Your task to perform on an android device: turn on priority inbox in the gmail app Image 0: 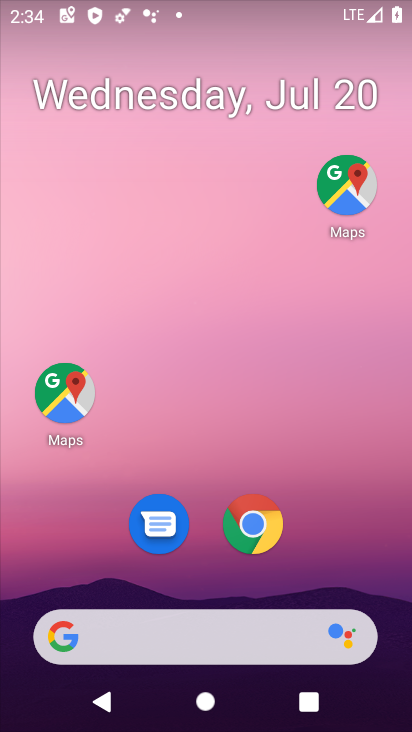
Step 0: drag from (275, 464) to (263, 72)
Your task to perform on an android device: turn on priority inbox in the gmail app Image 1: 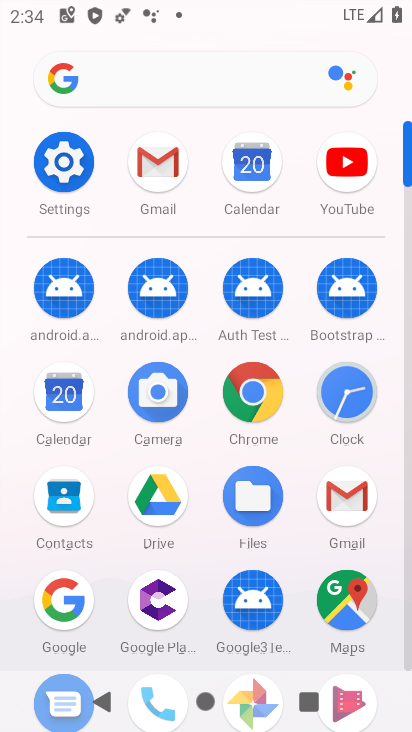
Step 1: click (167, 156)
Your task to perform on an android device: turn on priority inbox in the gmail app Image 2: 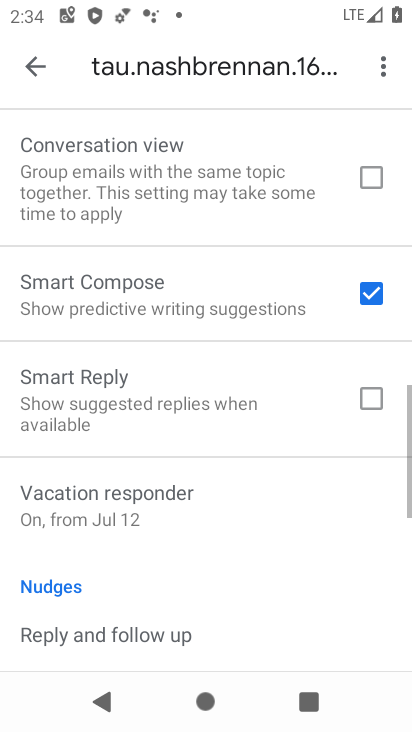
Step 2: drag from (156, 276) to (139, 627)
Your task to perform on an android device: turn on priority inbox in the gmail app Image 3: 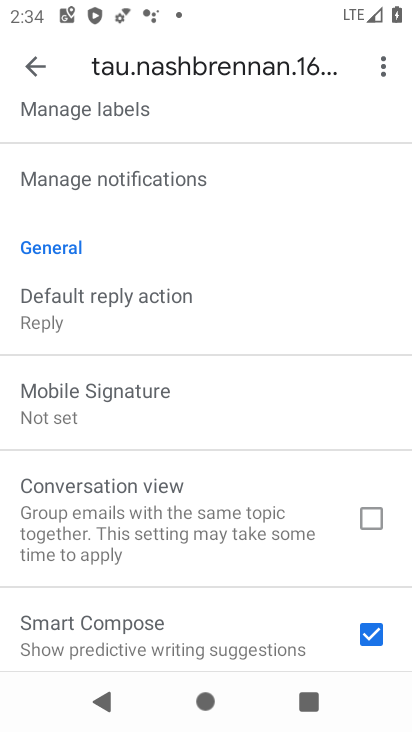
Step 3: drag from (177, 241) to (198, 535)
Your task to perform on an android device: turn on priority inbox in the gmail app Image 4: 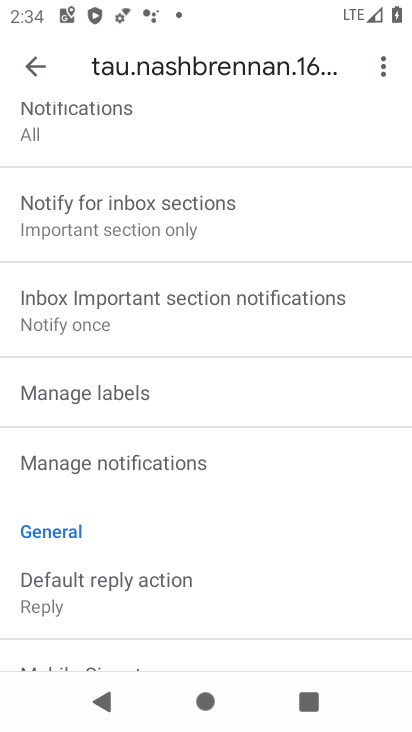
Step 4: drag from (176, 213) to (179, 597)
Your task to perform on an android device: turn on priority inbox in the gmail app Image 5: 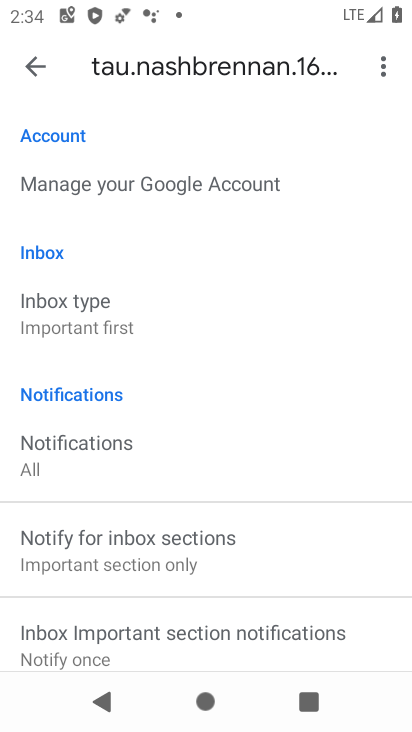
Step 5: drag from (227, 247) to (232, 520)
Your task to perform on an android device: turn on priority inbox in the gmail app Image 6: 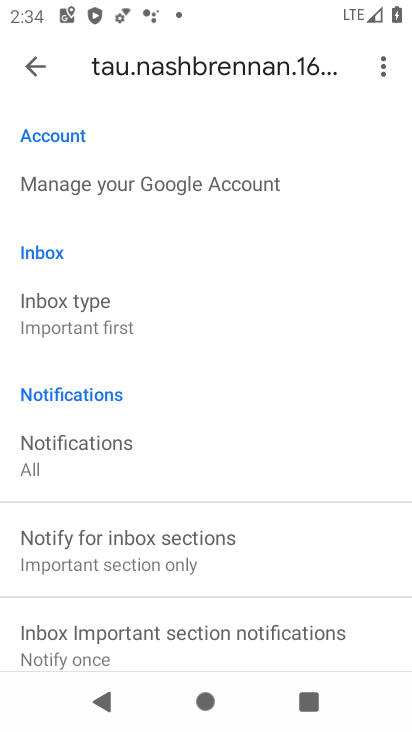
Step 6: click (81, 322)
Your task to perform on an android device: turn on priority inbox in the gmail app Image 7: 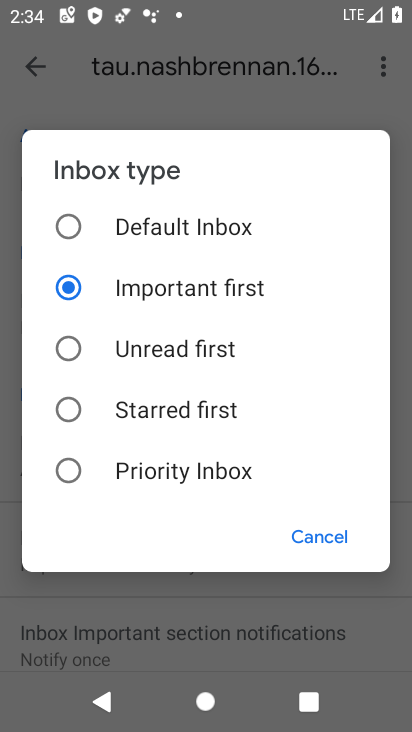
Step 7: click (65, 473)
Your task to perform on an android device: turn on priority inbox in the gmail app Image 8: 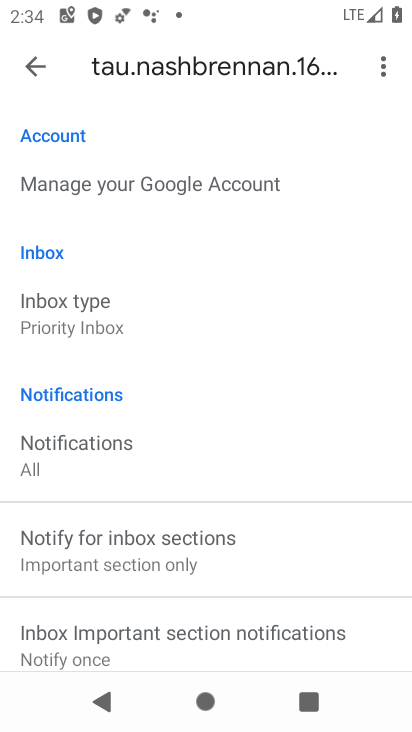
Step 8: task complete